Your task to perform on an android device: turn on bluetooth scan Image 0: 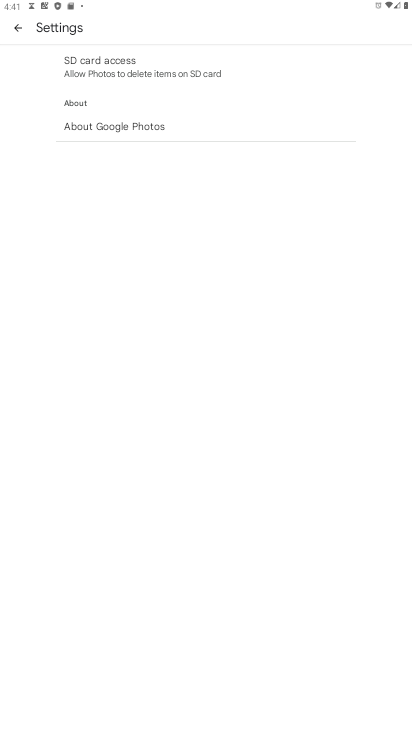
Step 0: press home button
Your task to perform on an android device: turn on bluetooth scan Image 1: 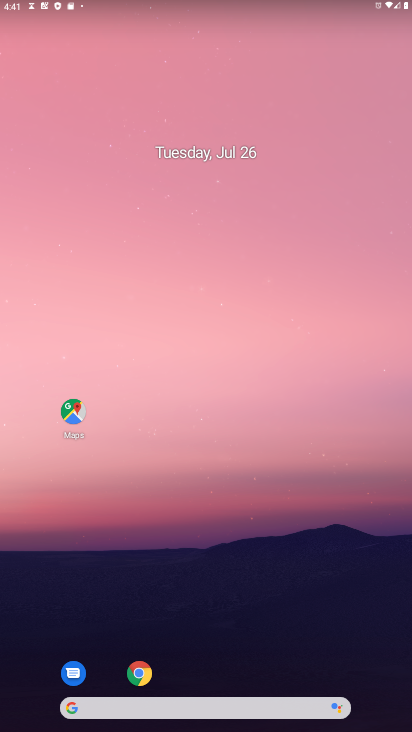
Step 1: drag from (178, 704) to (231, 6)
Your task to perform on an android device: turn on bluetooth scan Image 2: 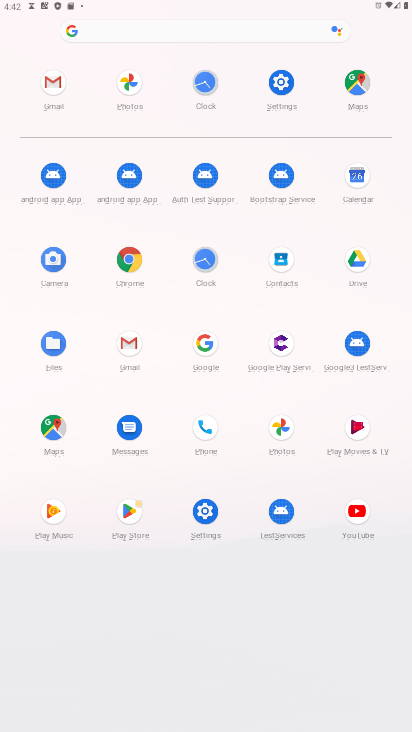
Step 2: click (279, 83)
Your task to perform on an android device: turn on bluetooth scan Image 3: 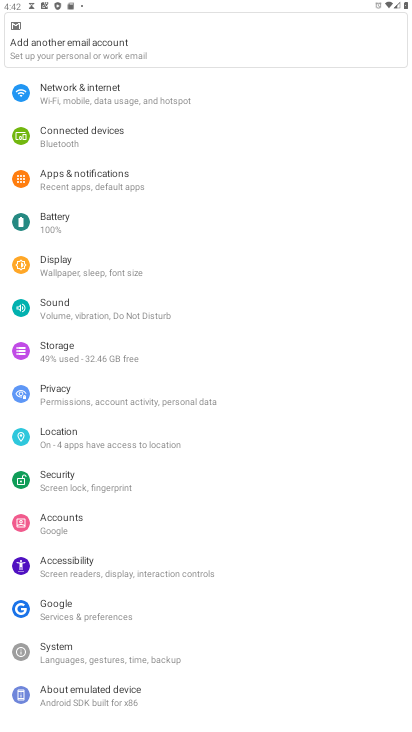
Step 3: click (95, 441)
Your task to perform on an android device: turn on bluetooth scan Image 4: 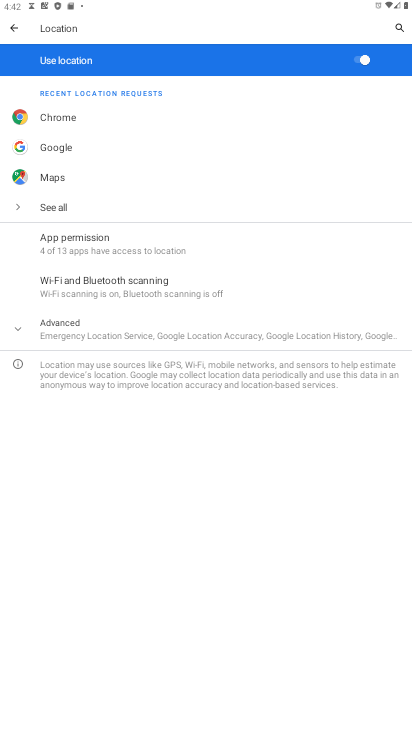
Step 4: click (154, 290)
Your task to perform on an android device: turn on bluetooth scan Image 5: 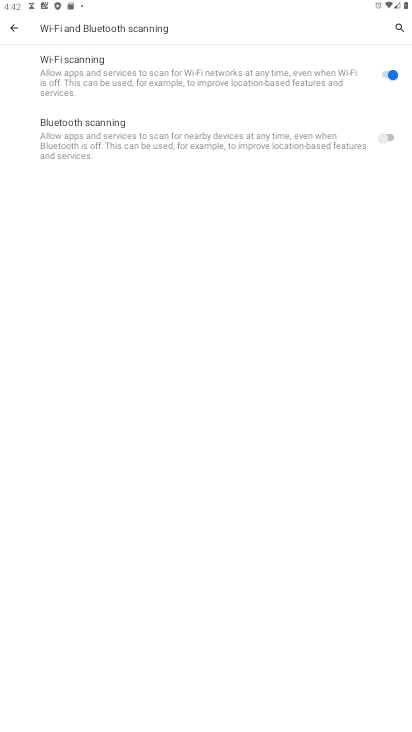
Step 5: click (384, 139)
Your task to perform on an android device: turn on bluetooth scan Image 6: 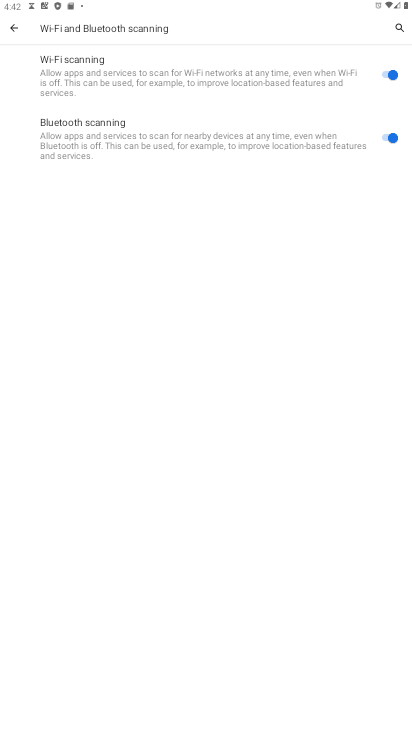
Step 6: task complete